Your task to perform on an android device: Go to battery settings Image 0: 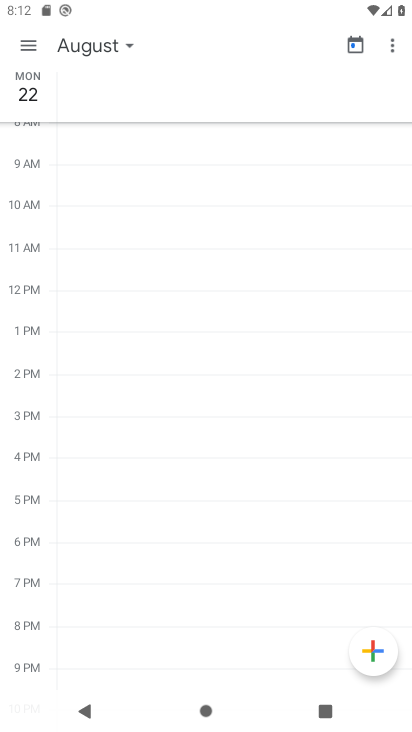
Step 0: press home button
Your task to perform on an android device: Go to battery settings Image 1: 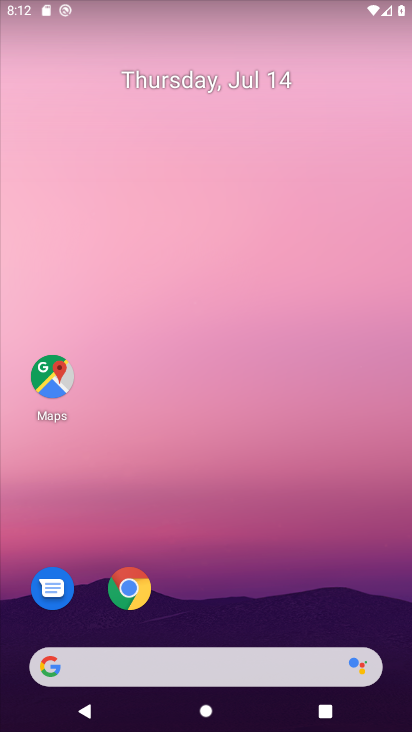
Step 1: drag from (327, 599) to (365, 52)
Your task to perform on an android device: Go to battery settings Image 2: 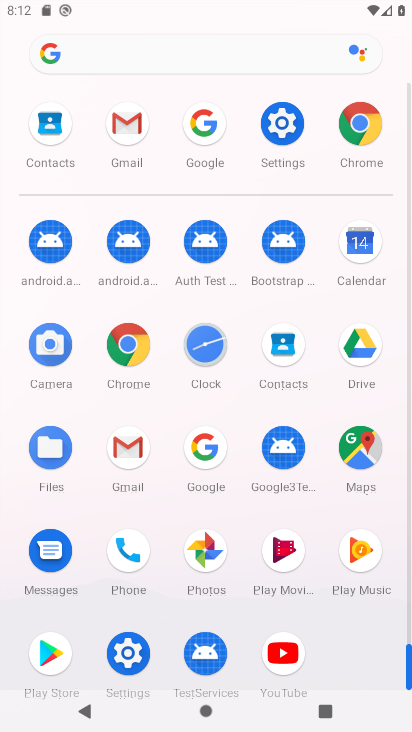
Step 2: click (285, 125)
Your task to perform on an android device: Go to battery settings Image 3: 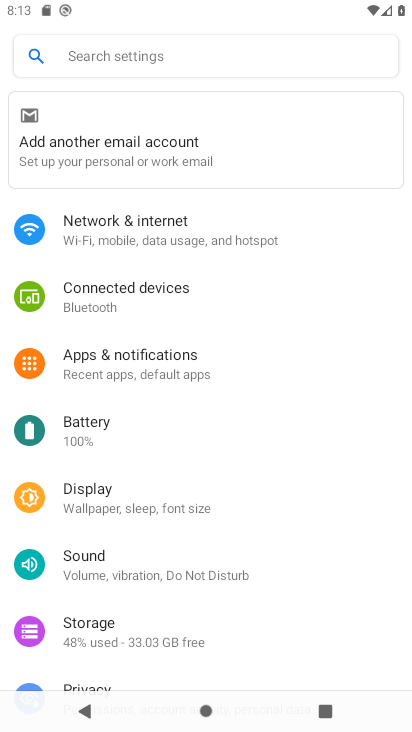
Step 3: drag from (323, 373) to (336, 293)
Your task to perform on an android device: Go to battery settings Image 4: 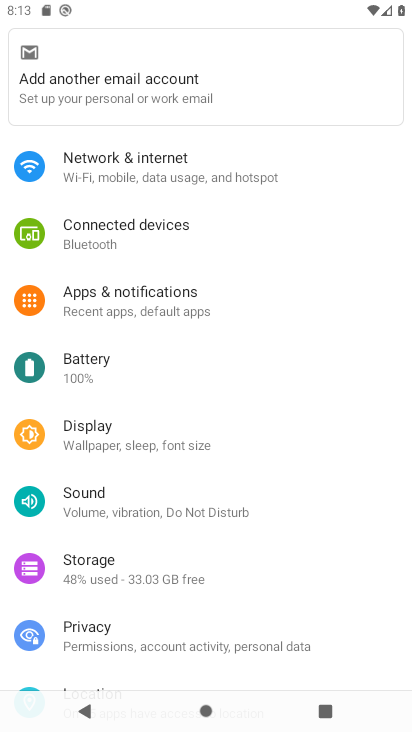
Step 4: drag from (323, 423) to (331, 312)
Your task to perform on an android device: Go to battery settings Image 5: 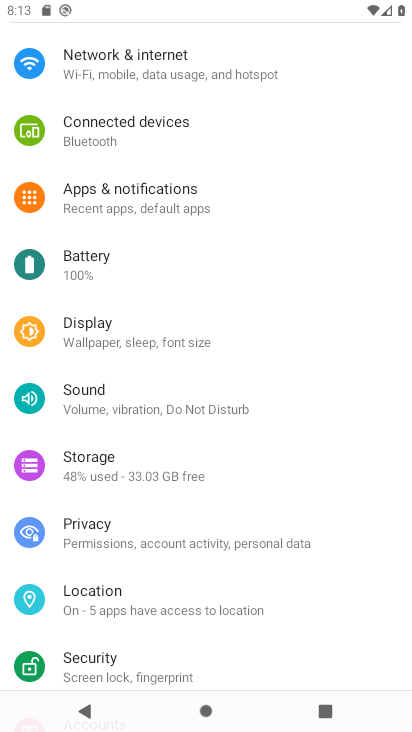
Step 5: drag from (339, 466) to (345, 353)
Your task to perform on an android device: Go to battery settings Image 6: 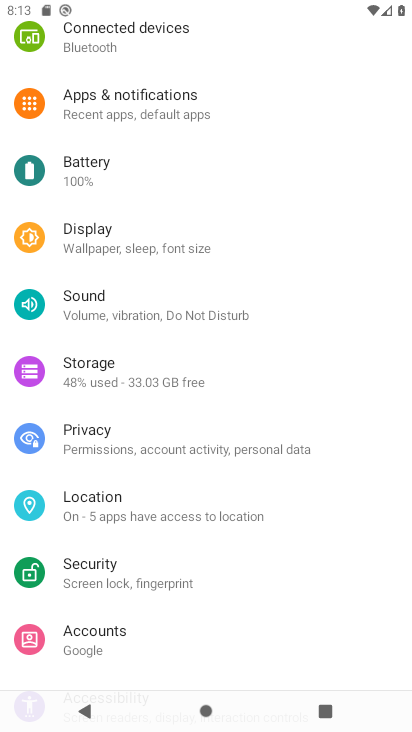
Step 6: drag from (353, 455) to (359, 378)
Your task to perform on an android device: Go to battery settings Image 7: 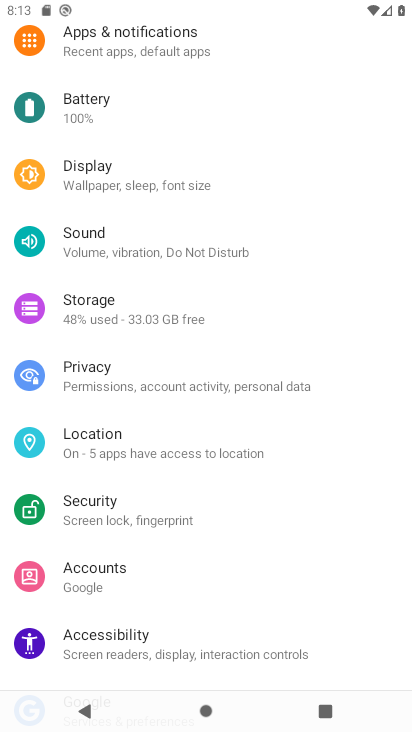
Step 7: drag from (339, 498) to (341, 395)
Your task to perform on an android device: Go to battery settings Image 8: 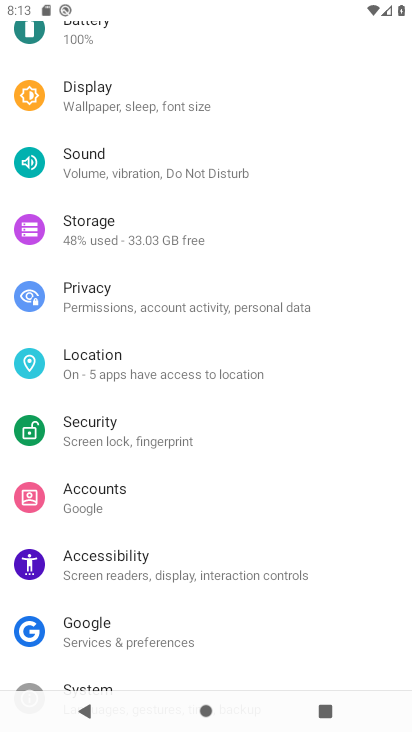
Step 8: drag from (343, 516) to (351, 411)
Your task to perform on an android device: Go to battery settings Image 9: 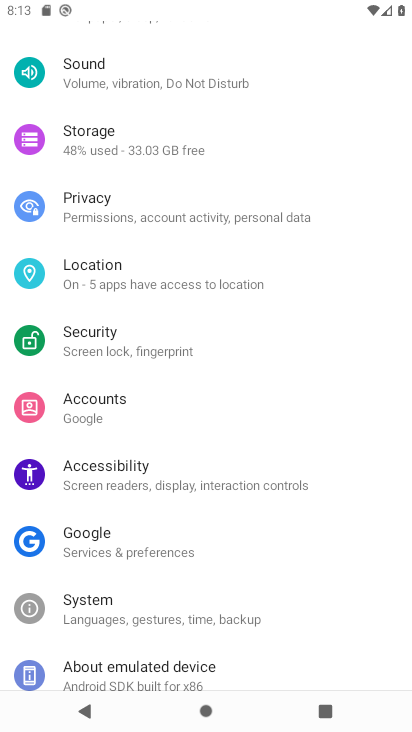
Step 9: drag from (350, 357) to (347, 435)
Your task to perform on an android device: Go to battery settings Image 10: 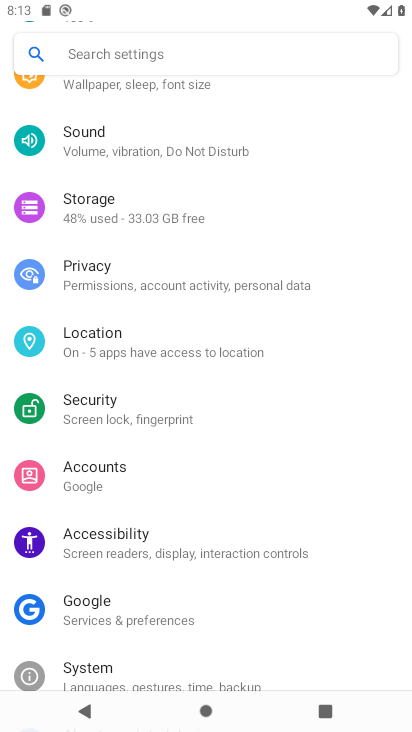
Step 10: drag from (351, 342) to (352, 418)
Your task to perform on an android device: Go to battery settings Image 11: 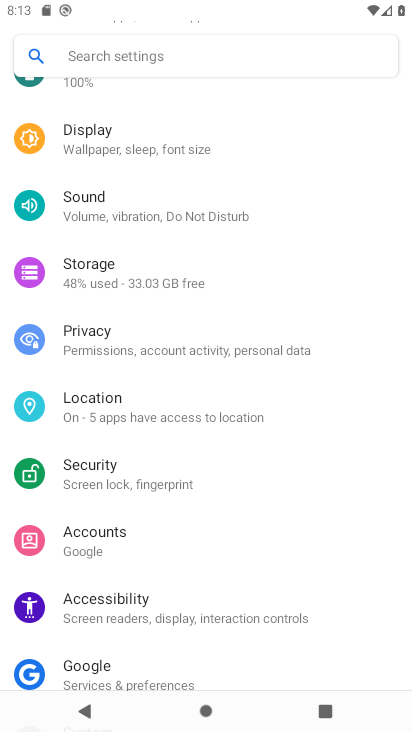
Step 11: drag from (354, 340) to (354, 417)
Your task to perform on an android device: Go to battery settings Image 12: 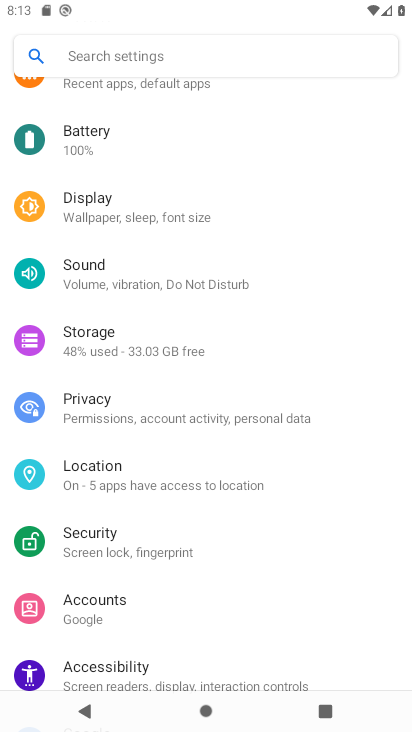
Step 12: drag from (350, 340) to (350, 428)
Your task to perform on an android device: Go to battery settings Image 13: 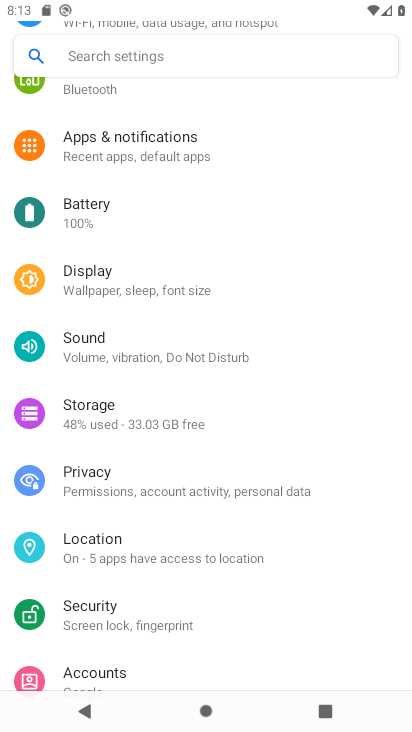
Step 13: drag from (349, 360) to (348, 432)
Your task to perform on an android device: Go to battery settings Image 14: 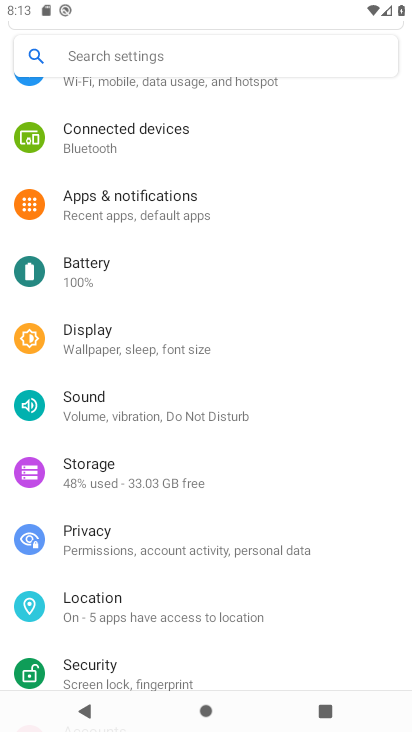
Step 14: drag from (345, 300) to (344, 476)
Your task to perform on an android device: Go to battery settings Image 15: 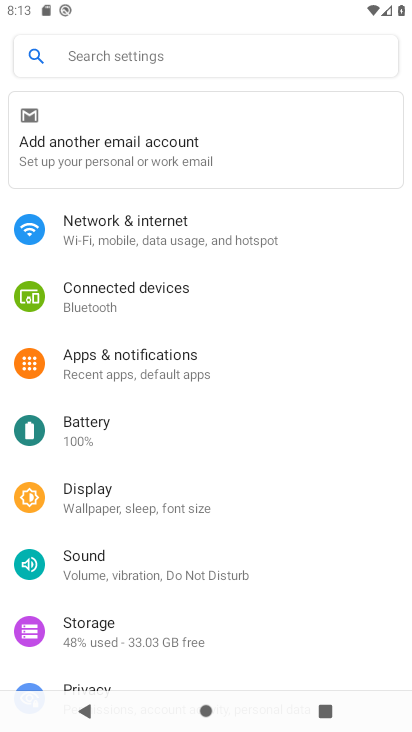
Step 15: drag from (324, 344) to (321, 457)
Your task to perform on an android device: Go to battery settings Image 16: 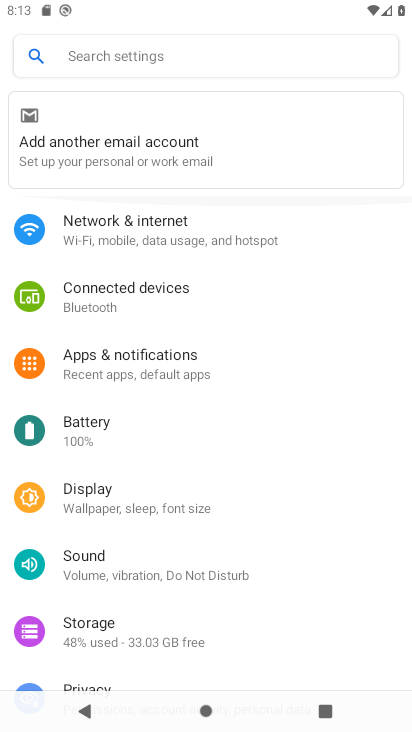
Step 16: click (165, 442)
Your task to perform on an android device: Go to battery settings Image 17: 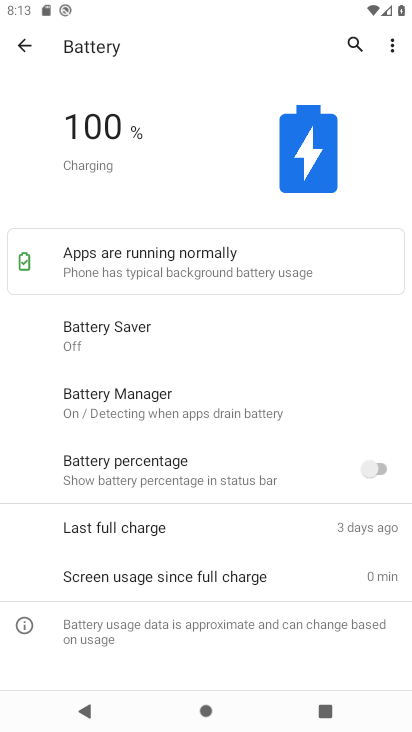
Step 17: task complete